Your task to perform on an android device: turn smart compose on in the gmail app Image 0: 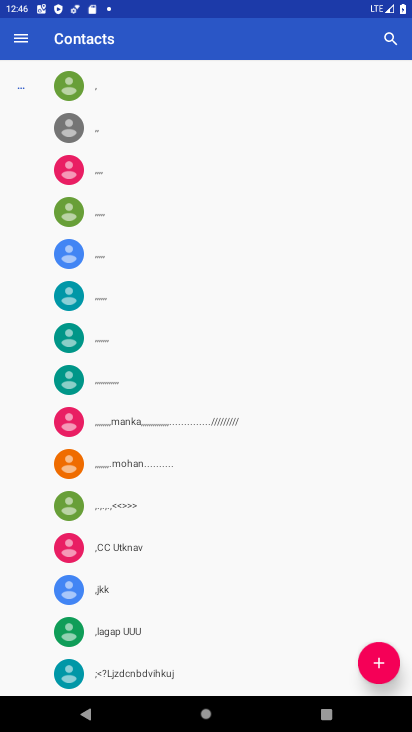
Step 0: press home button
Your task to perform on an android device: turn smart compose on in the gmail app Image 1: 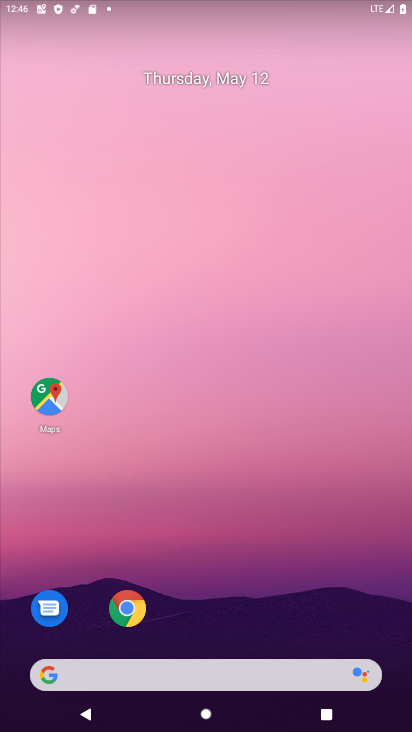
Step 1: drag from (288, 640) to (264, 4)
Your task to perform on an android device: turn smart compose on in the gmail app Image 2: 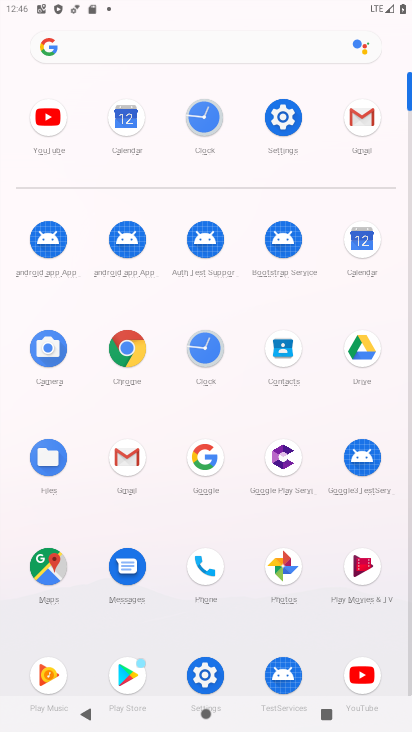
Step 2: click (361, 123)
Your task to perform on an android device: turn smart compose on in the gmail app Image 3: 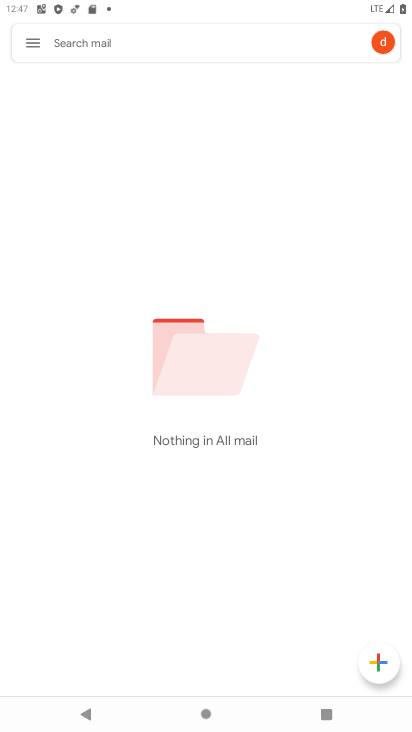
Step 3: click (33, 46)
Your task to perform on an android device: turn smart compose on in the gmail app Image 4: 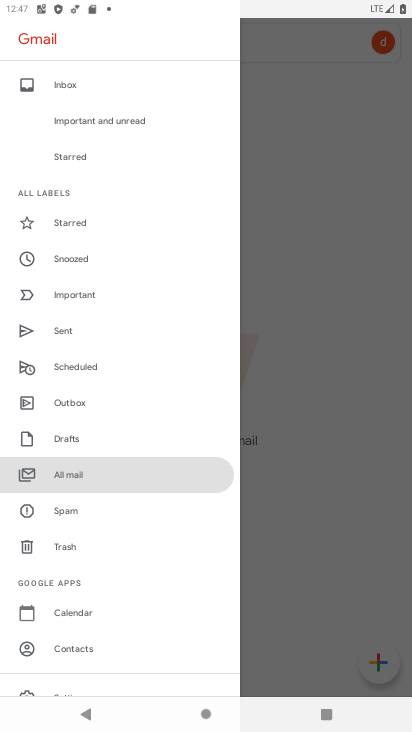
Step 4: drag from (118, 628) to (132, 262)
Your task to perform on an android device: turn smart compose on in the gmail app Image 5: 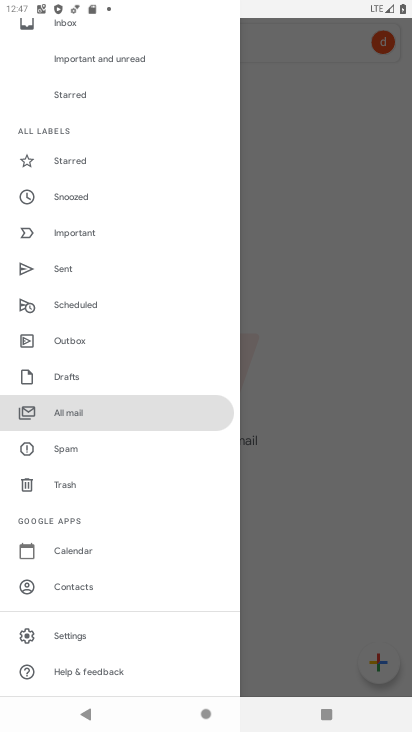
Step 5: click (94, 636)
Your task to perform on an android device: turn smart compose on in the gmail app Image 6: 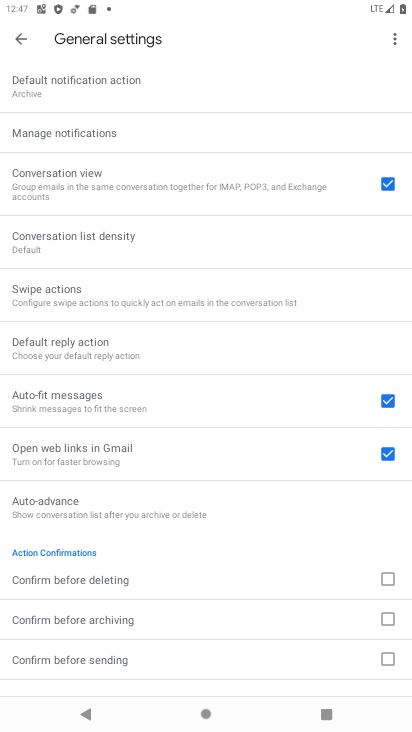
Step 6: click (24, 39)
Your task to perform on an android device: turn smart compose on in the gmail app Image 7: 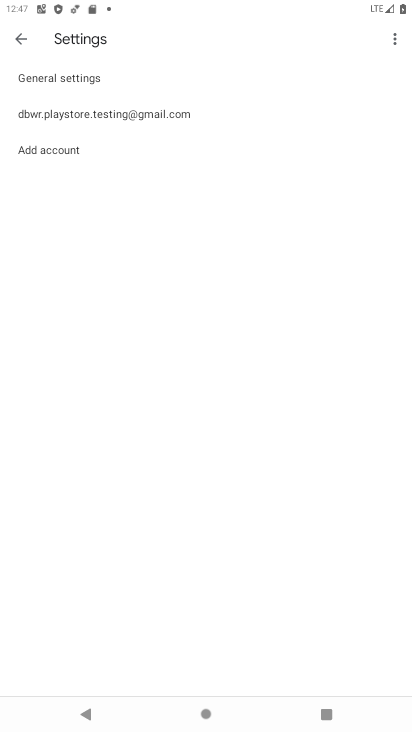
Step 7: click (62, 107)
Your task to perform on an android device: turn smart compose on in the gmail app Image 8: 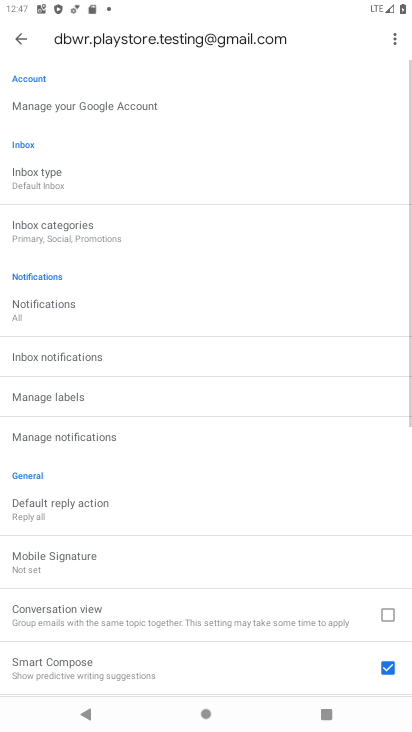
Step 8: task complete